Your task to perform on an android device: When is my next meeting? Image 0: 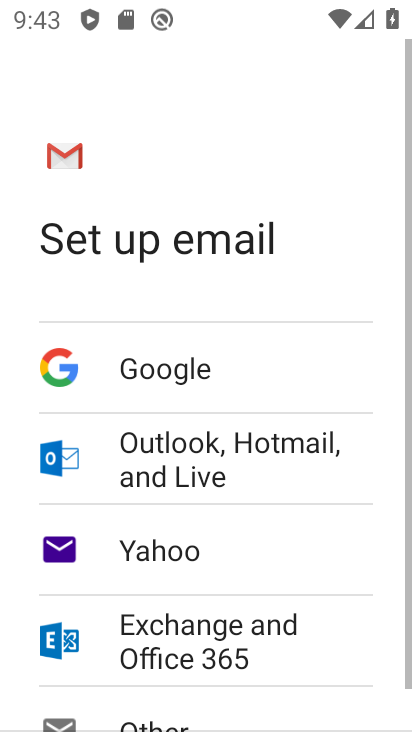
Step 0: click (298, 121)
Your task to perform on an android device: When is my next meeting? Image 1: 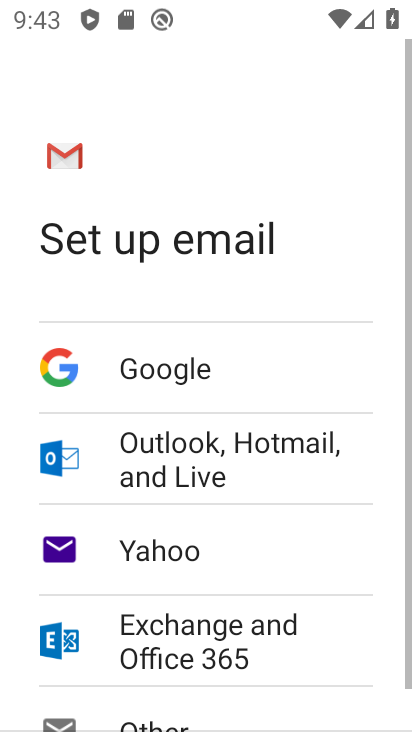
Step 1: press home button
Your task to perform on an android device: When is my next meeting? Image 2: 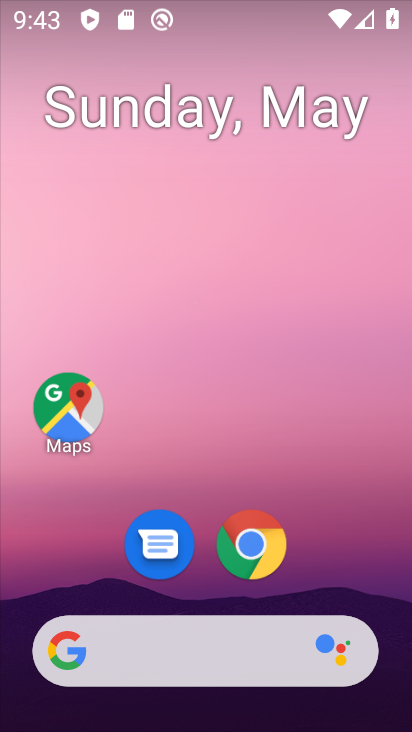
Step 2: drag from (333, 451) to (315, 144)
Your task to perform on an android device: When is my next meeting? Image 3: 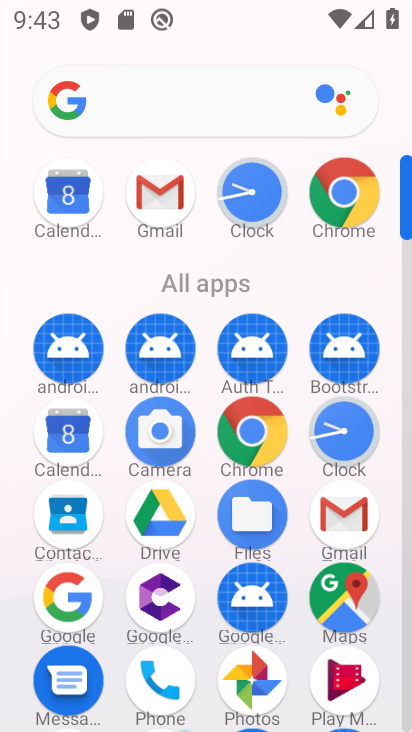
Step 3: click (90, 419)
Your task to perform on an android device: When is my next meeting? Image 4: 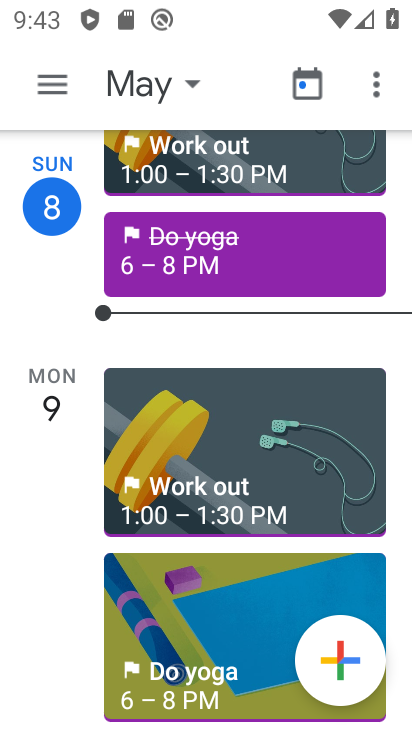
Step 4: click (177, 83)
Your task to perform on an android device: When is my next meeting? Image 5: 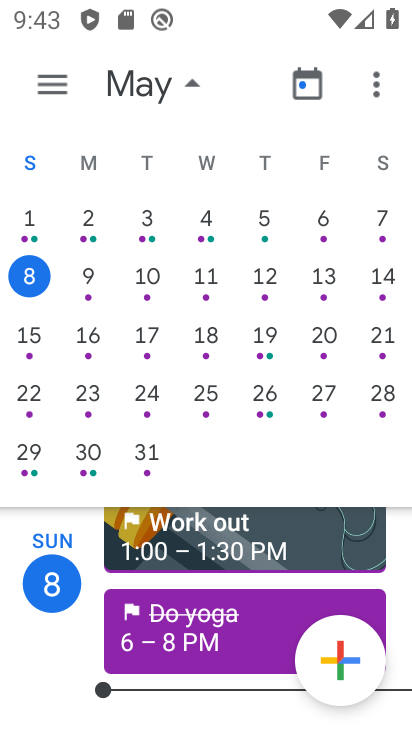
Step 5: click (89, 292)
Your task to perform on an android device: When is my next meeting? Image 6: 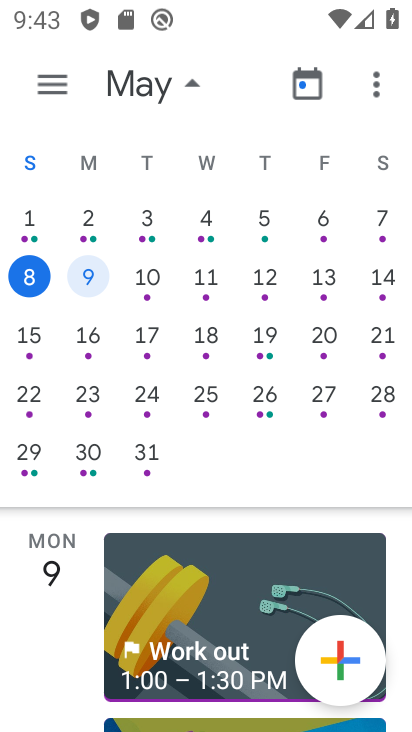
Step 6: click (188, 86)
Your task to perform on an android device: When is my next meeting? Image 7: 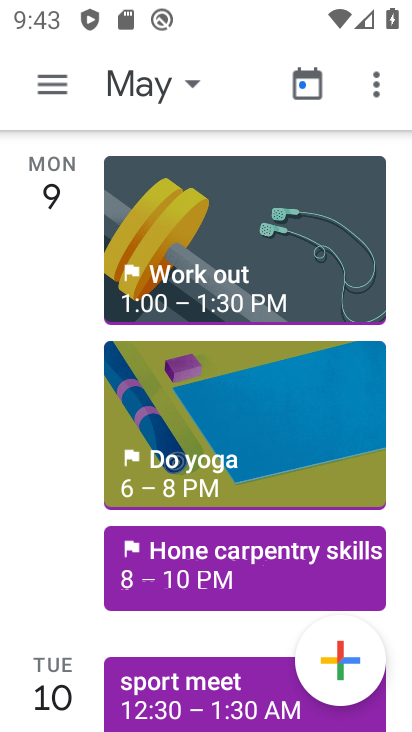
Step 7: task complete